Your task to perform on an android device: Is it going to rain today? Image 0: 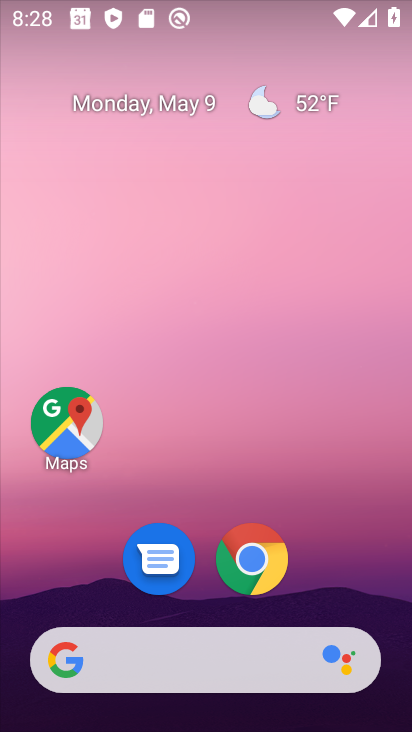
Step 0: click (301, 99)
Your task to perform on an android device: Is it going to rain today? Image 1: 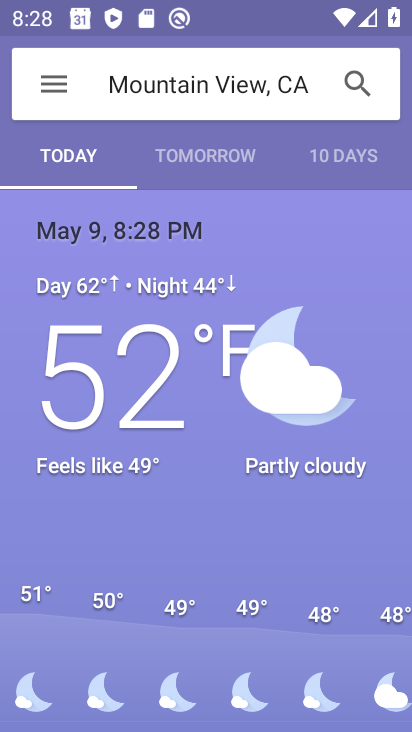
Step 1: task complete